Your task to perform on an android device: toggle show notifications on the lock screen Image 0: 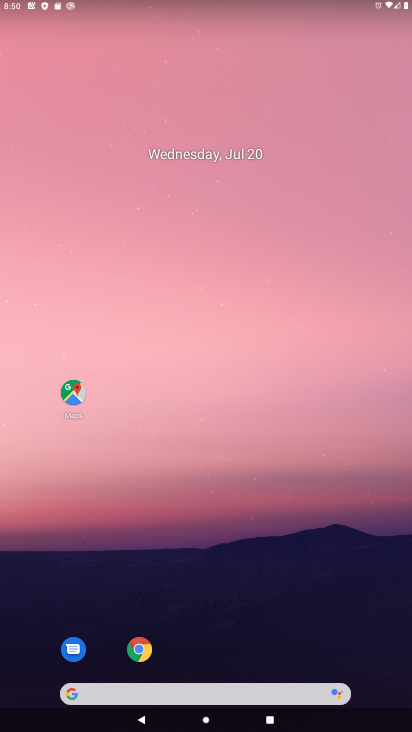
Step 0: drag from (184, 685) to (171, 269)
Your task to perform on an android device: toggle show notifications on the lock screen Image 1: 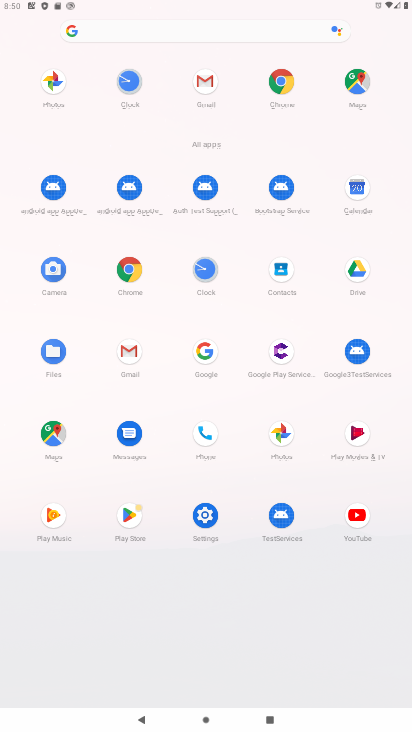
Step 1: click (199, 517)
Your task to perform on an android device: toggle show notifications on the lock screen Image 2: 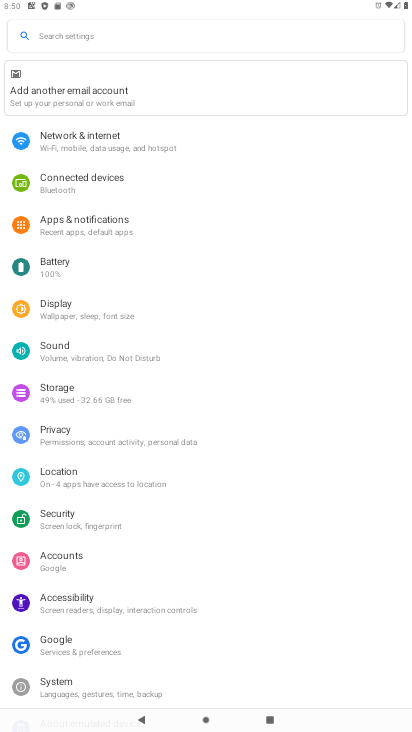
Step 2: click (71, 430)
Your task to perform on an android device: toggle show notifications on the lock screen Image 3: 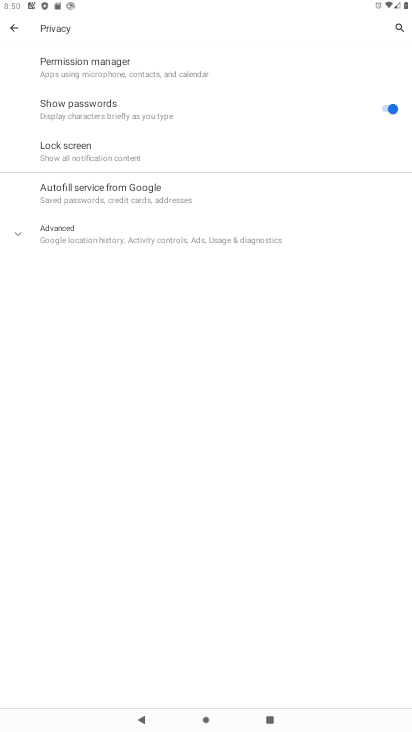
Step 3: click (59, 226)
Your task to perform on an android device: toggle show notifications on the lock screen Image 4: 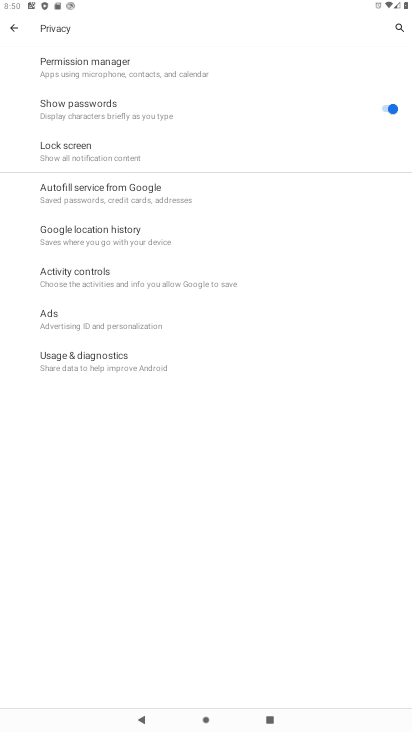
Step 4: click (77, 147)
Your task to perform on an android device: toggle show notifications on the lock screen Image 5: 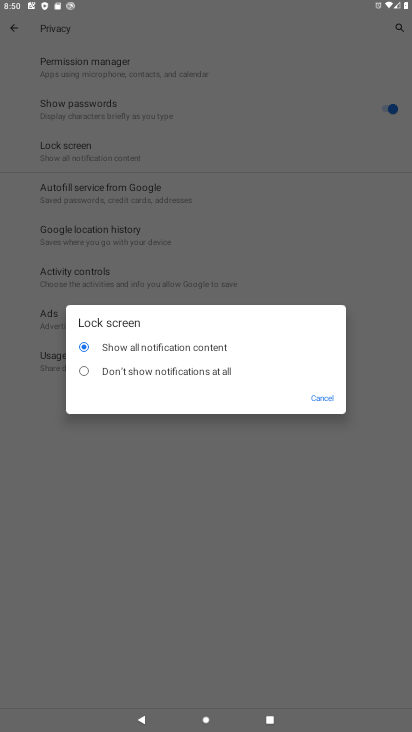
Step 5: click (151, 369)
Your task to perform on an android device: toggle show notifications on the lock screen Image 6: 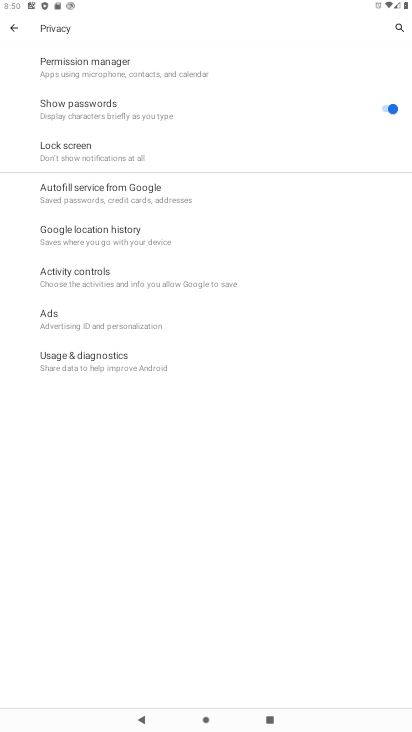
Step 6: task complete